Your task to perform on an android device: Open Google Chrome Image 0: 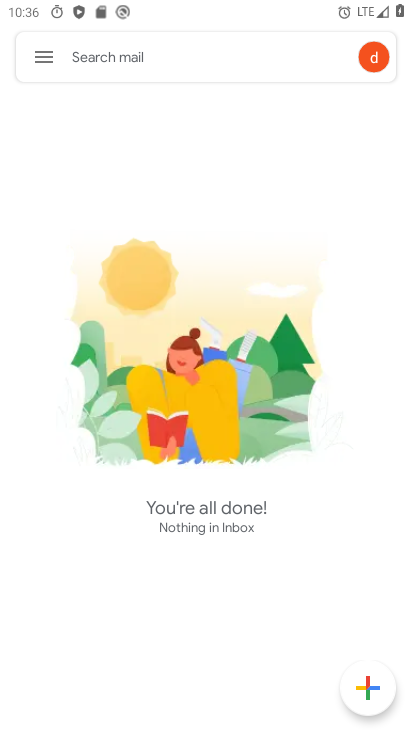
Step 0: press home button
Your task to perform on an android device: Open Google Chrome Image 1: 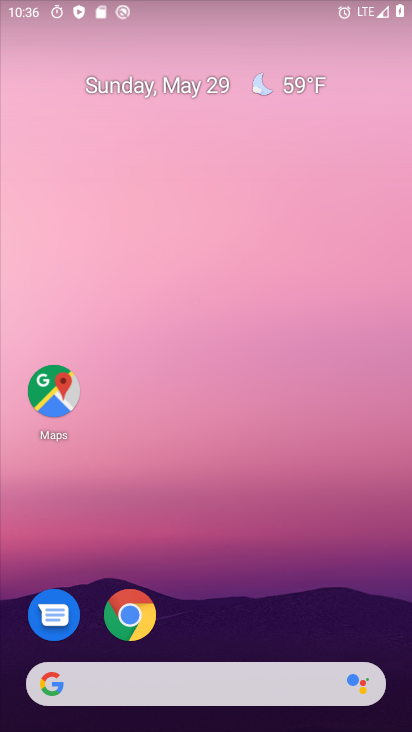
Step 1: click (138, 609)
Your task to perform on an android device: Open Google Chrome Image 2: 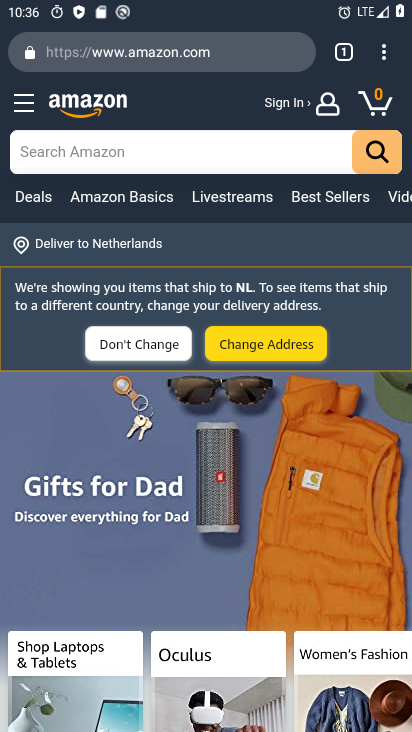
Step 2: task complete